Your task to perform on an android device: Open settings on Google Maps Image 0: 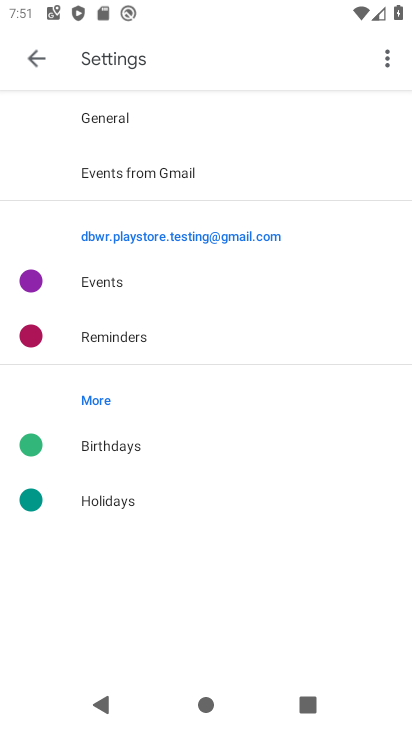
Step 0: press home button
Your task to perform on an android device: Open settings on Google Maps Image 1: 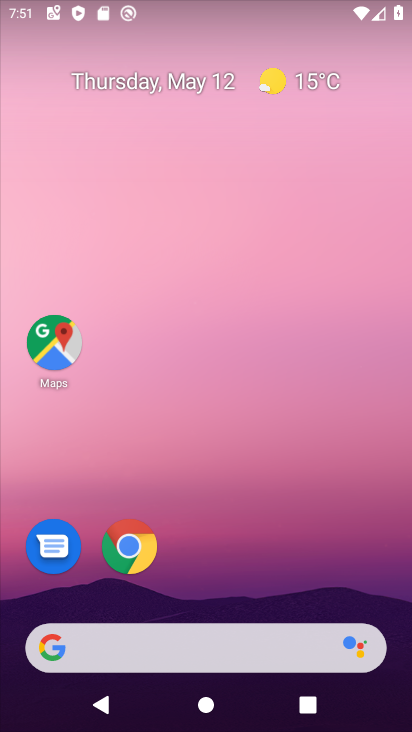
Step 1: click (67, 354)
Your task to perform on an android device: Open settings on Google Maps Image 2: 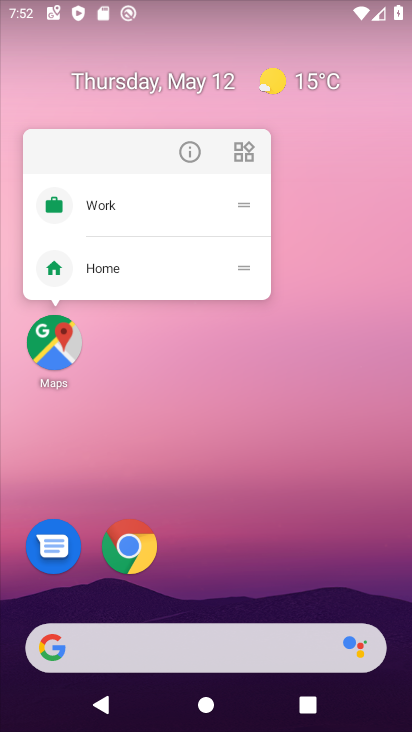
Step 2: click (59, 351)
Your task to perform on an android device: Open settings on Google Maps Image 3: 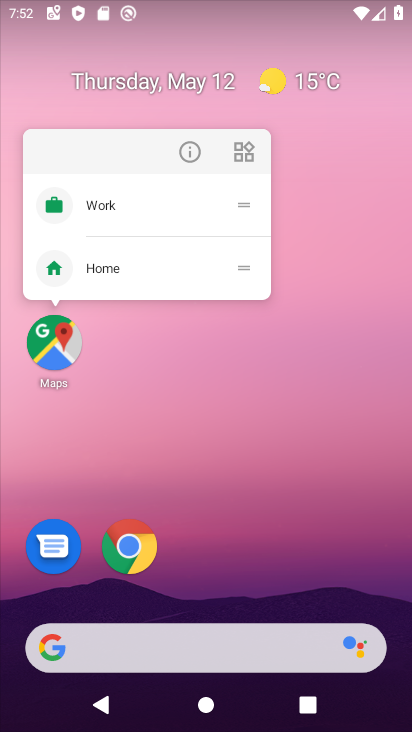
Step 3: click (51, 354)
Your task to perform on an android device: Open settings on Google Maps Image 4: 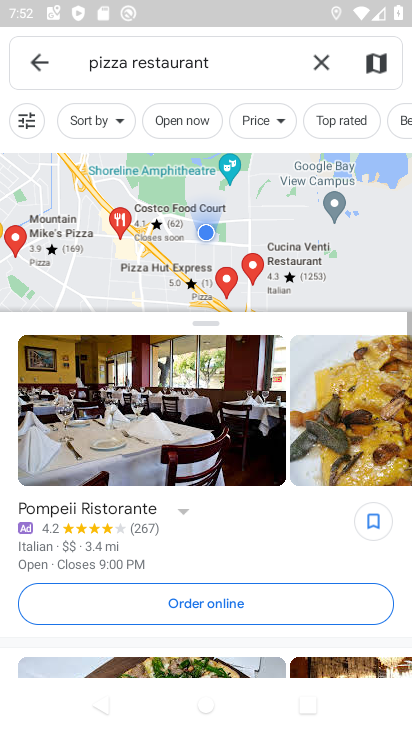
Step 4: click (38, 58)
Your task to perform on an android device: Open settings on Google Maps Image 5: 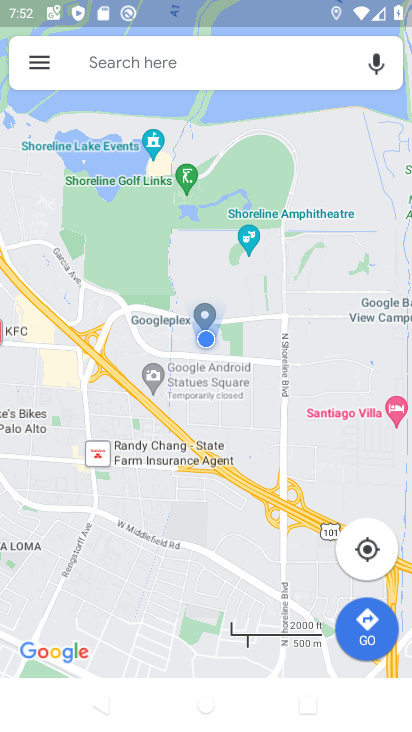
Step 5: click (38, 58)
Your task to perform on an android device: Open settings on Google Maps Image 6: 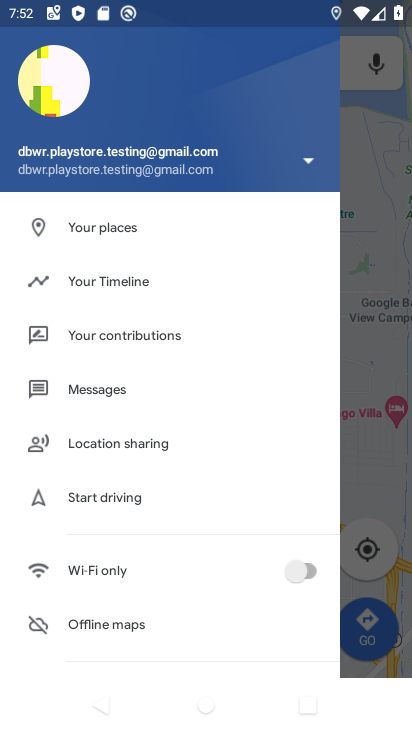
Step 6: drag from (168, 620) to (237, 116)
Your task to perform on an android device: Open settings on Google Maps Image 7: 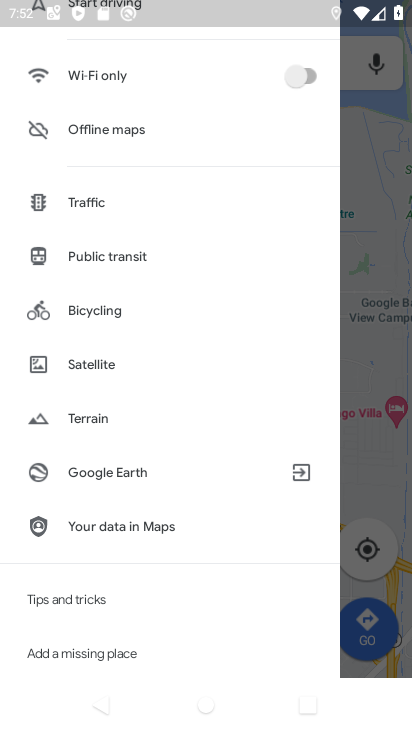
Step 7: drag from (170, 539) to (216, 178)
Your task to perform on an android device: Open settings on Google Maps Image 8: 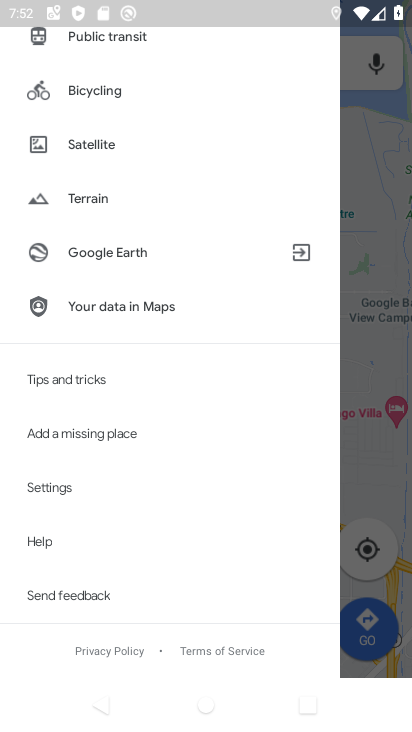
Step 8: click (54, 487)
Your task to perform on an android device: Open settings on Google Maps Image 9: 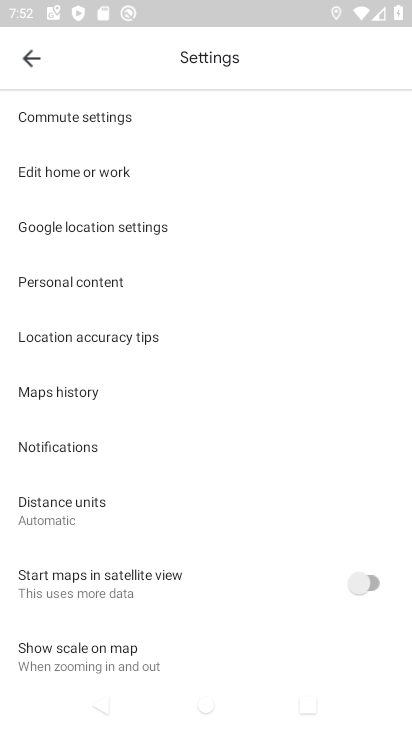
Step 9: task complete